Your task to perform on an android device: Open location settings Image 0: 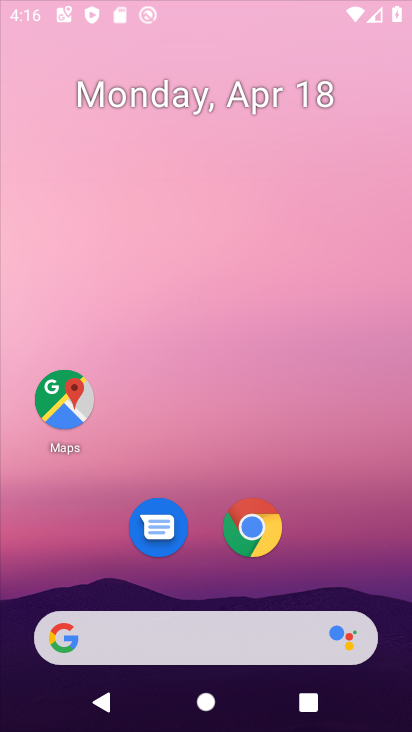
Step 0: drag from (210, 585) to (230, 13)
Your task to perform on an android device: Open location settings Image 1: 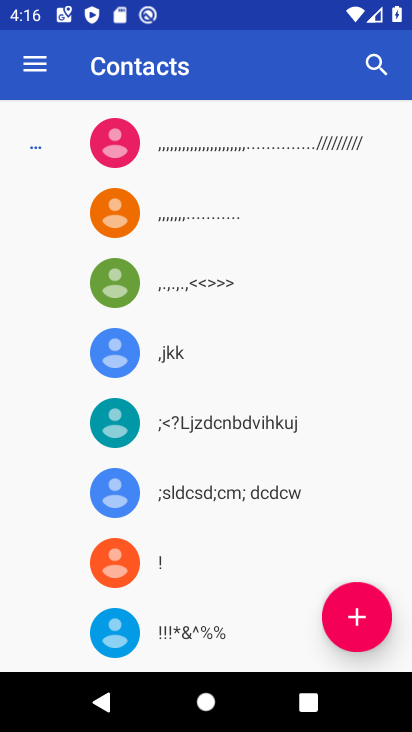
Step 1: press home button
Your task to perform on an android device: Open location settings Image 2: 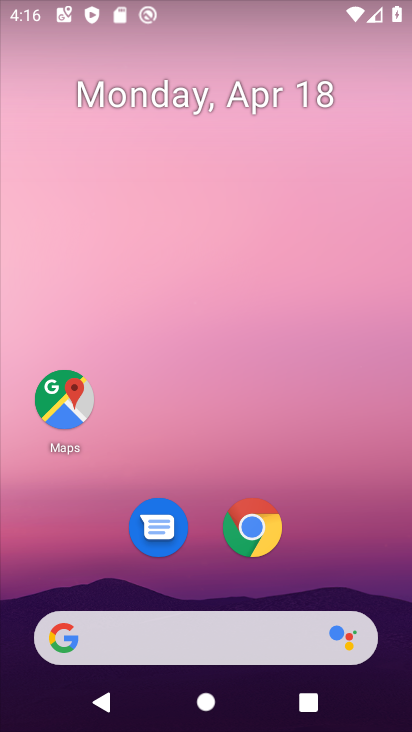
Step 2: drag from (205, 581) to (225, 35)
Your task to perform on an android device: Open location settings Image 3: 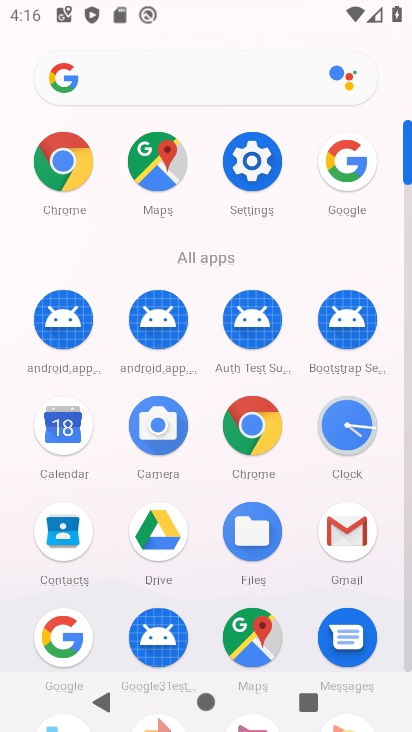
Step 3: click (252, 157)
Your task to perform on an android device: Open location settings Image 4: 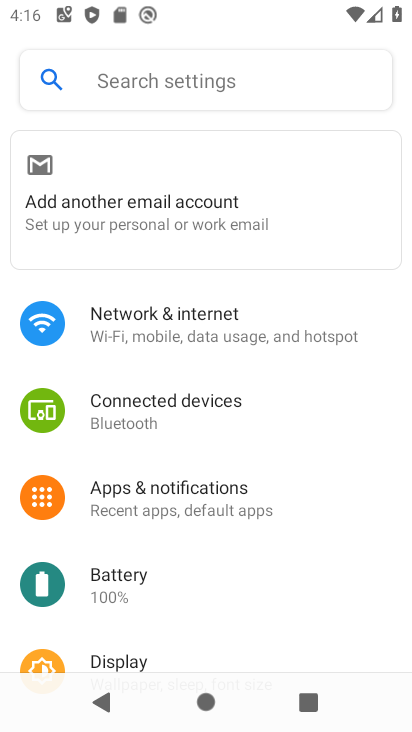
Step 4: drag from (184, 593) to (213, 61)
Your task to perform on an android device: Open location settings Image 5: 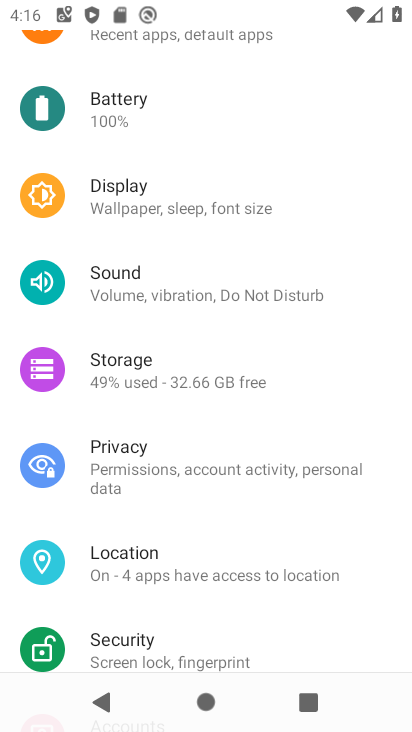
Step 5: click (167, 552)
Your task to perform on an android device: Open location settings Image 6: 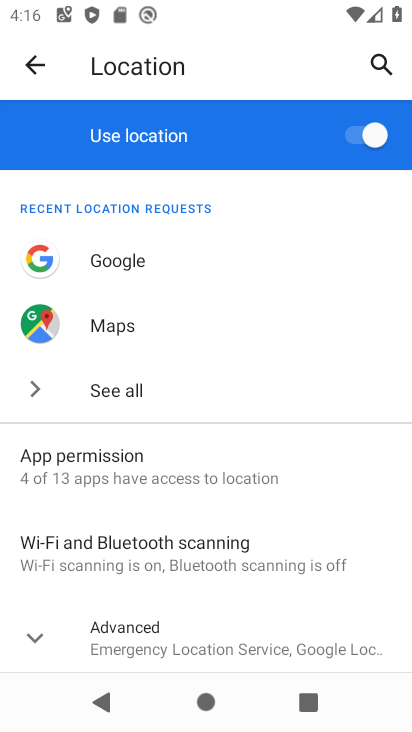
Step 6: click (46, 634)
Your task to perform on an android device: Open location settings Image 7: 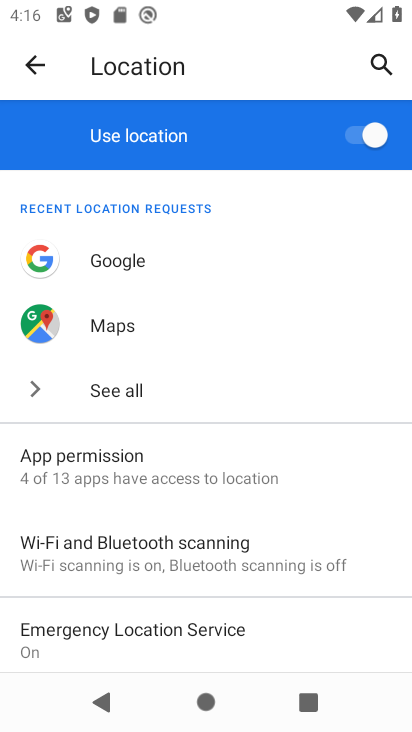
Step 7: task complete